Your task to perform on an android device: Add razer thresher to the cart on ebay.com, then select checkout. Image 0: 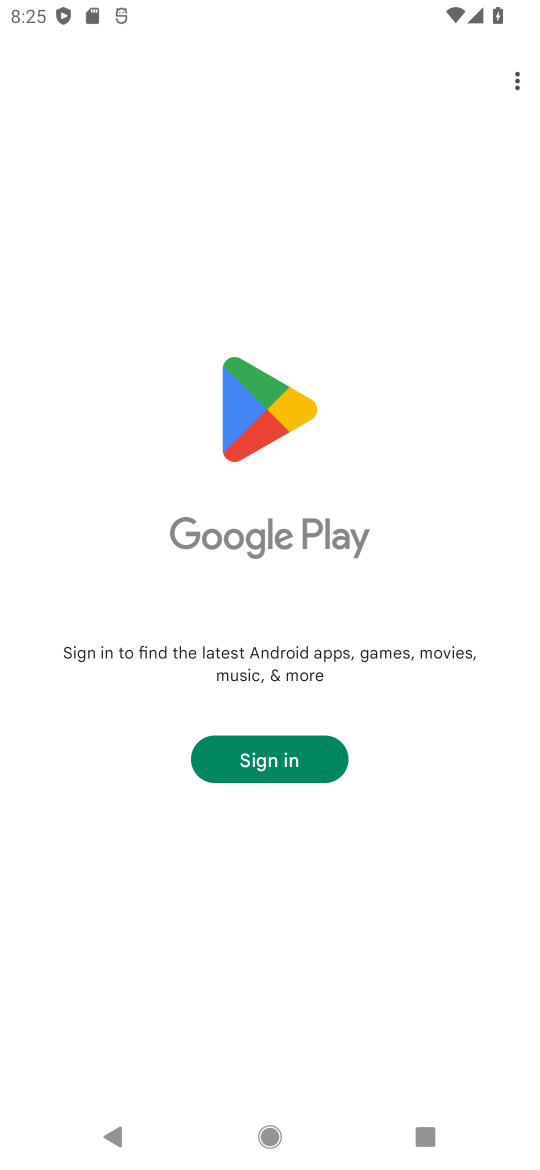
Step 0: press home button
Your task to perform on an android device: Add razer thresher to the cart on ebay.com, then select checkout. Image 1: 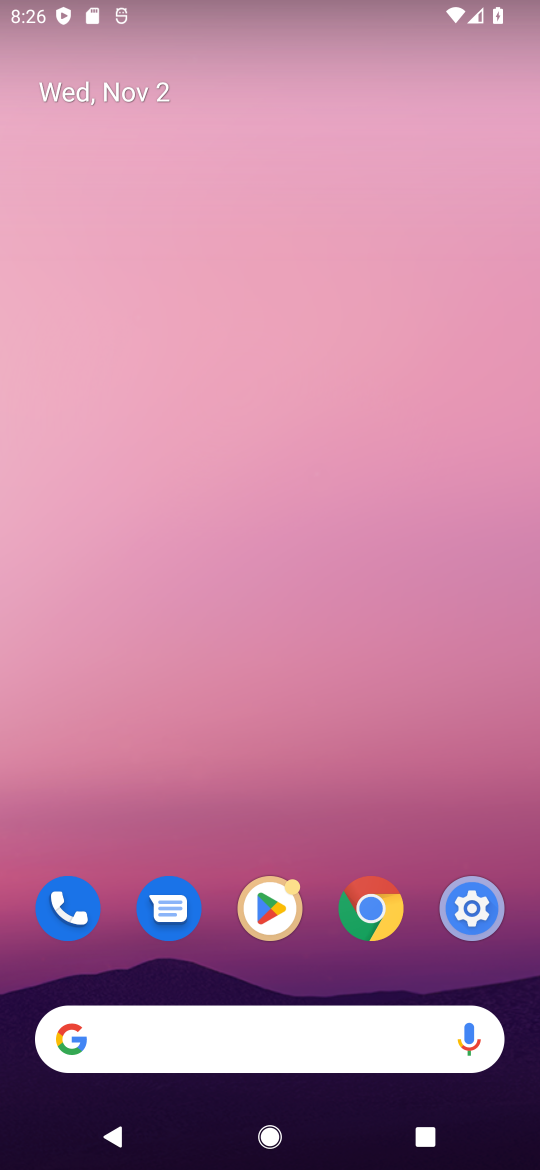
Step 1: click (229, 1024)
Your task to perform on an android device: Add razer thresher to the cart on ebay.com, then select checkout. Image 2: 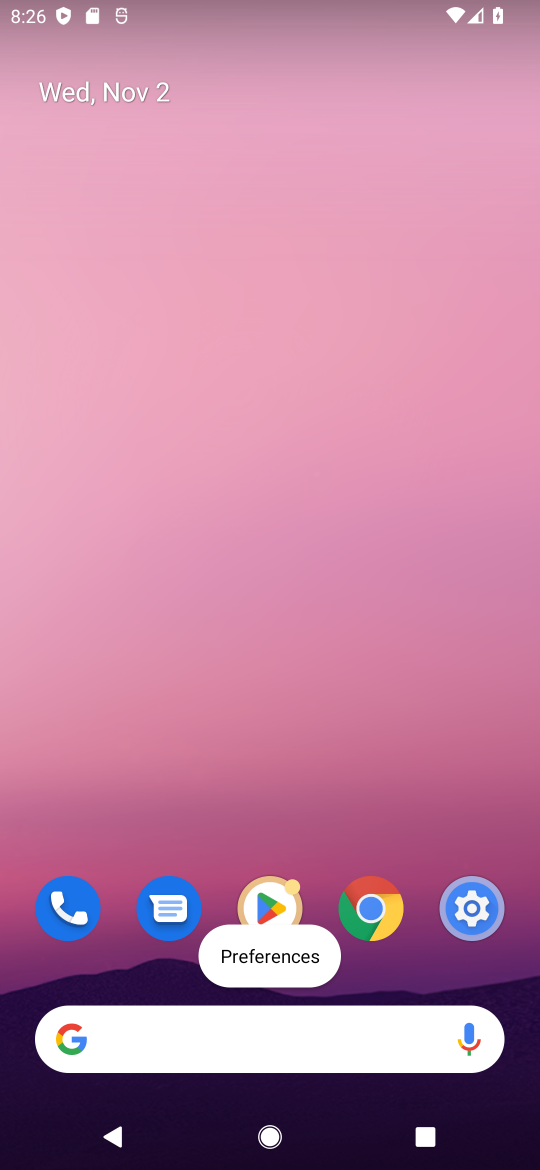
Step 2: click (229, 1029)
Your task to perform on an android device: Add razer thresher to the cart on ebay.com, then select checkout. Image 3: 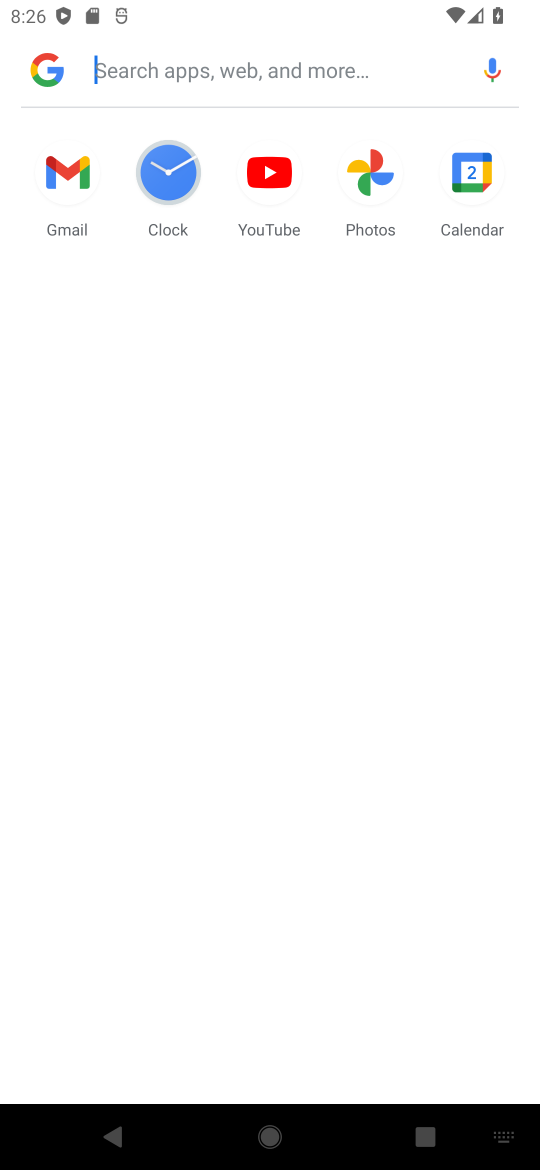
Step 3: type "ebay.com"
Your task to perform on an android device: Add razer thresher to the cart on ebay.com, then select checkout. Image 4: 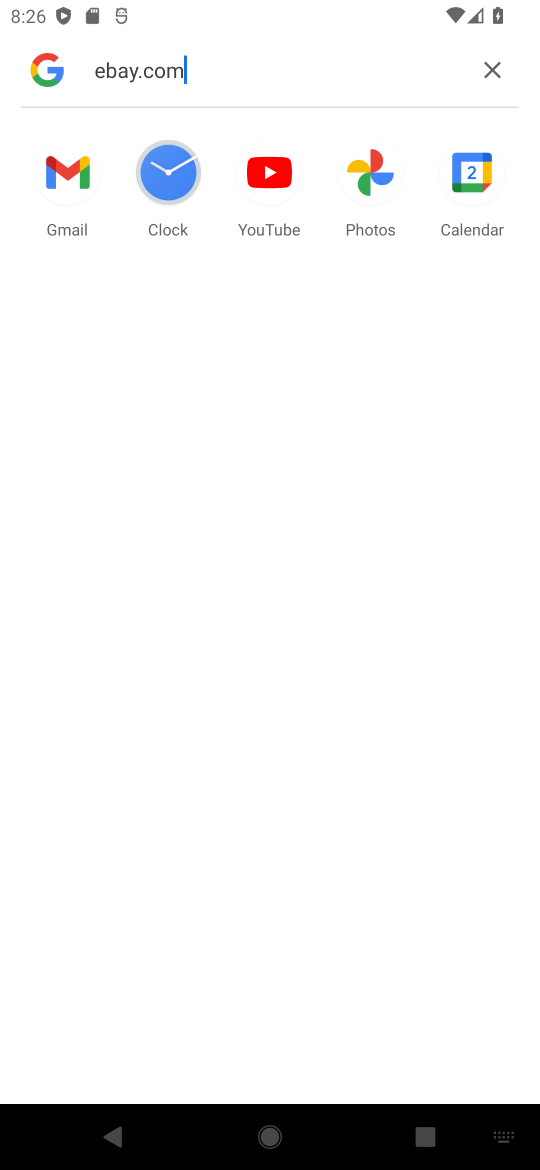
Step 4: type ""
Your task to perform on an android device: Add razer thresher to the cart on ebay.com, then select checkout. Image 5: 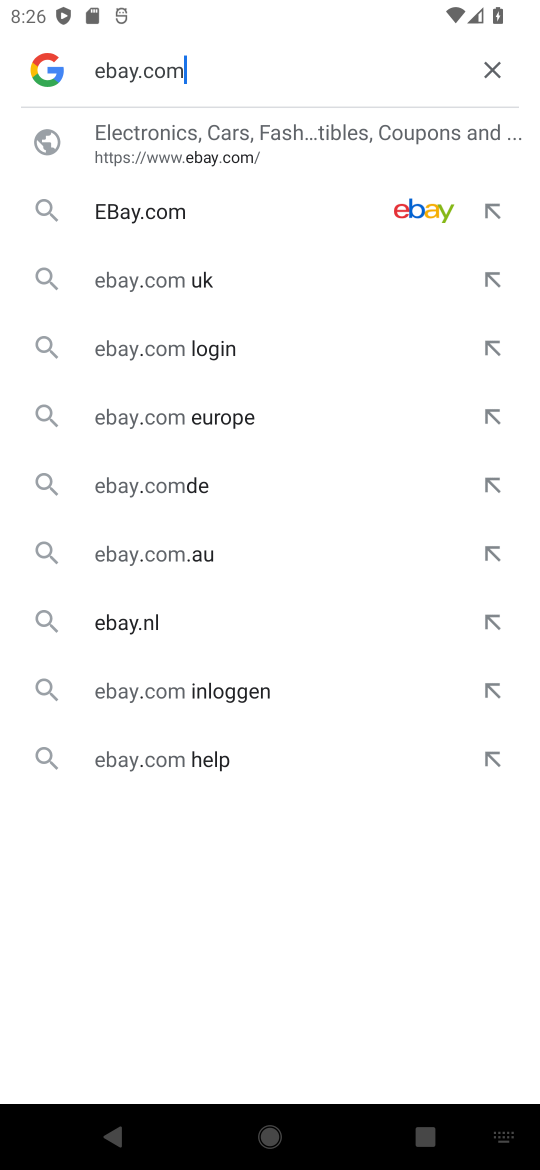
Step 5: press enter
Your task to perform on an android device: Add razer thresher to the cart on ebay.com, then select checkout. Image 6: 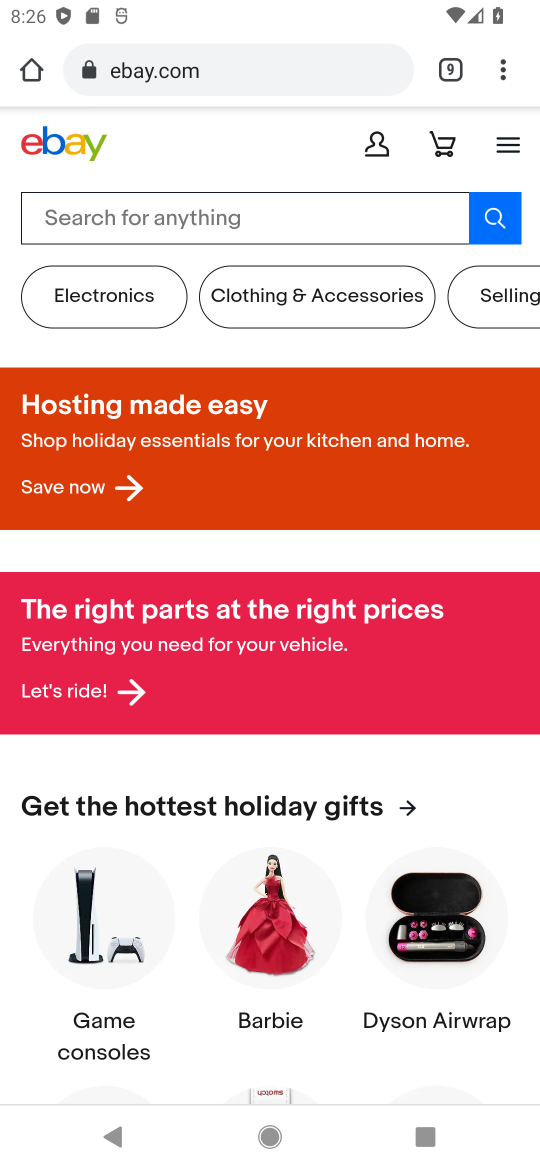
Step 6: click (137, 223)
Your task to perform on an android device: Add razer thresher to the cart on ebay.com, then select checkout. Image 7: 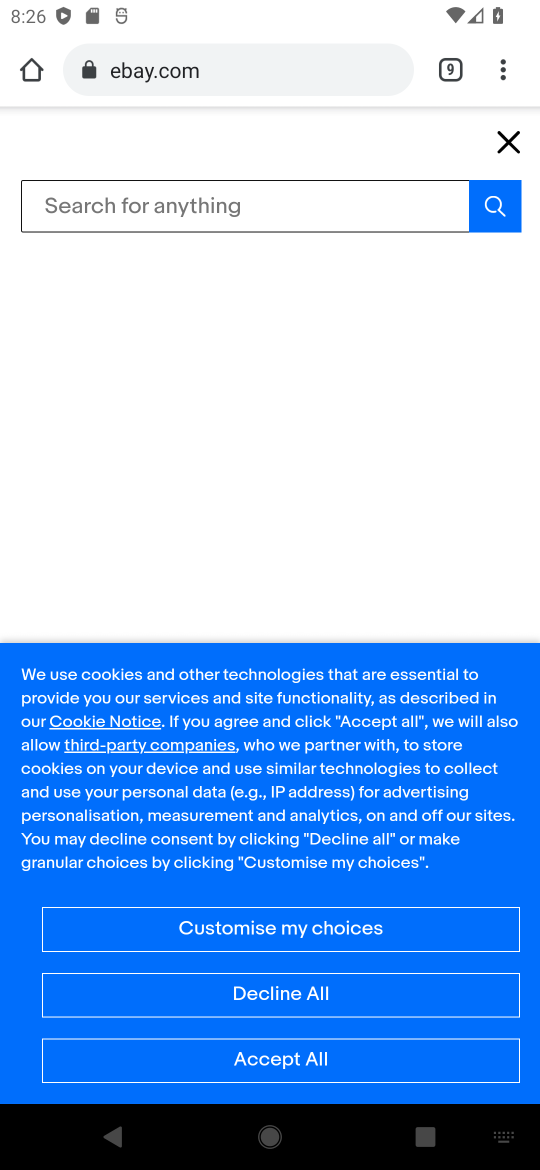
Step 7: click (317, 1051)
Your task to perform on an android device: Add razer thresher to the cart on ebay.com, then select checkout. Image 8: 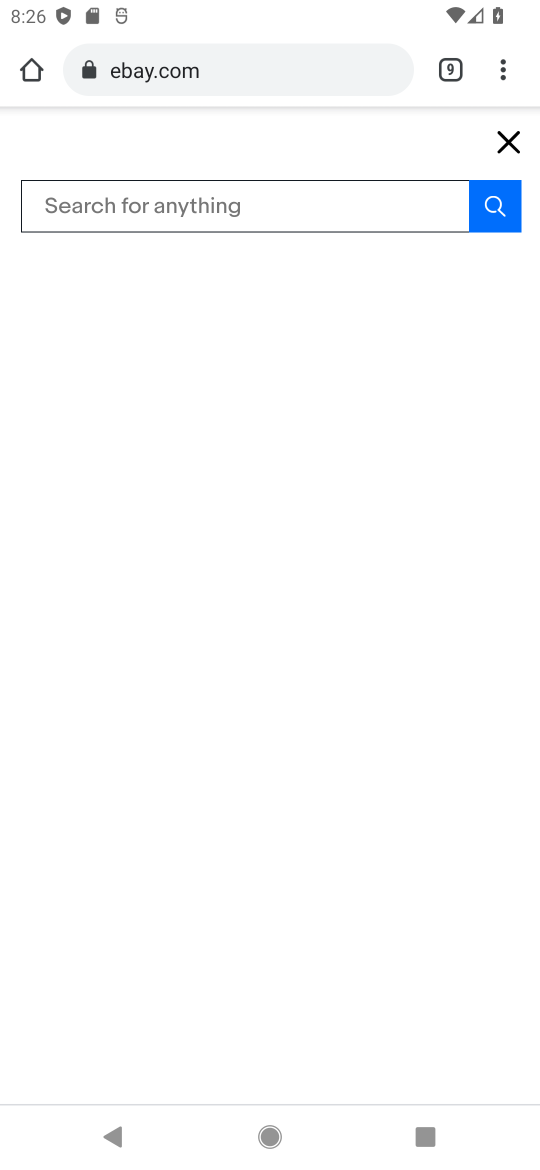
Step 8: click (110, 213)
Your task to perform on an android device: Add razer thresher to the cart on ebay.com, then select checkout. Image 9: 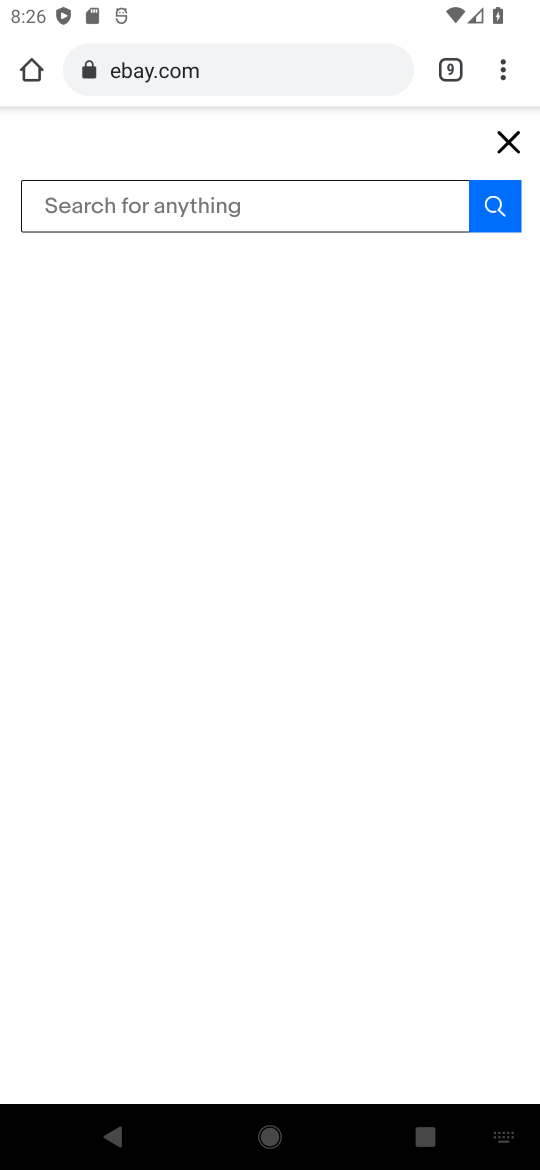
Step 9: click (107, 212)
Your task to perform on an android device: Add razer thresher to the cart on ebay.com, then select checkout. Image 10: 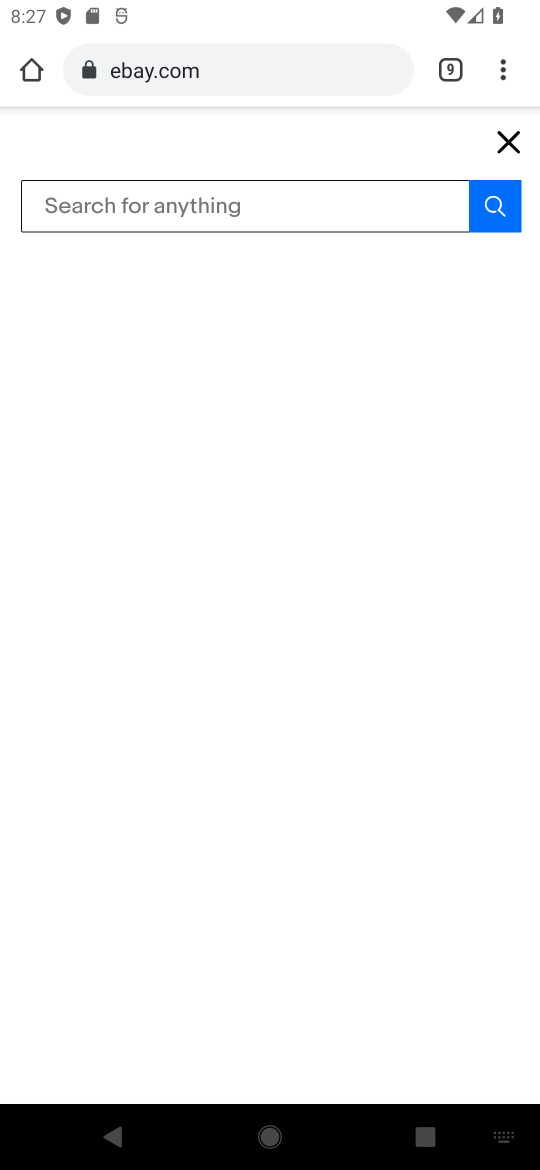
Step 10: click (105, 212)
Your task to perform on an android device: Add razer thresher to the cart on ebay.com, then select checkout. Image 11: 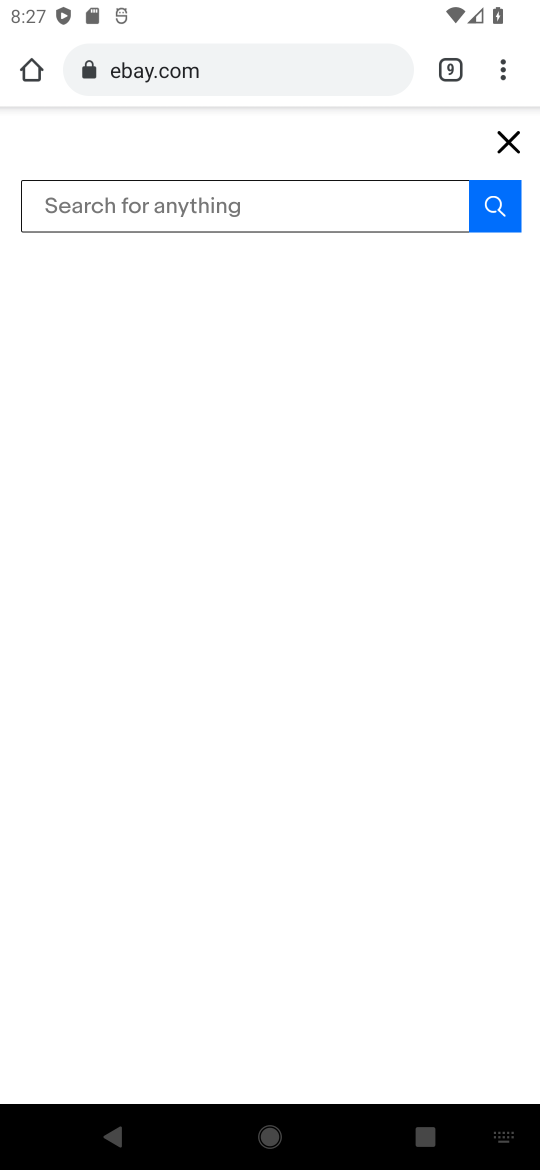
Step 11: type "razer thresher"
Your task to perform on an android device: Add razer thresher to the cart on ebay.com, then select checkout. Image 12: 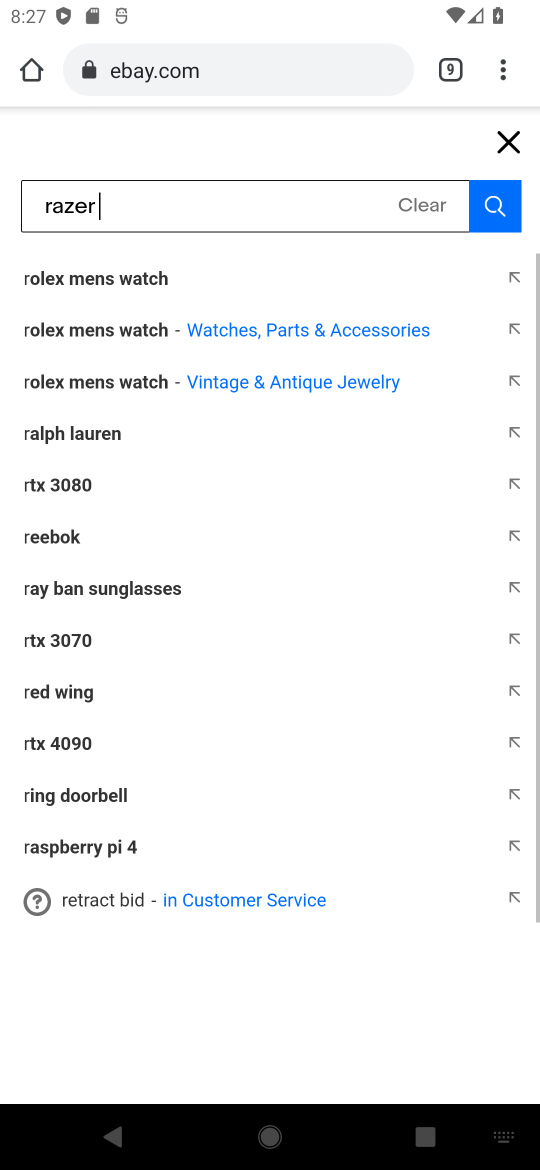
Step 12: press enter
Your task to perform on an android device: Add razer thresher to the cart on ebay.com, then select checkout. Image 13: 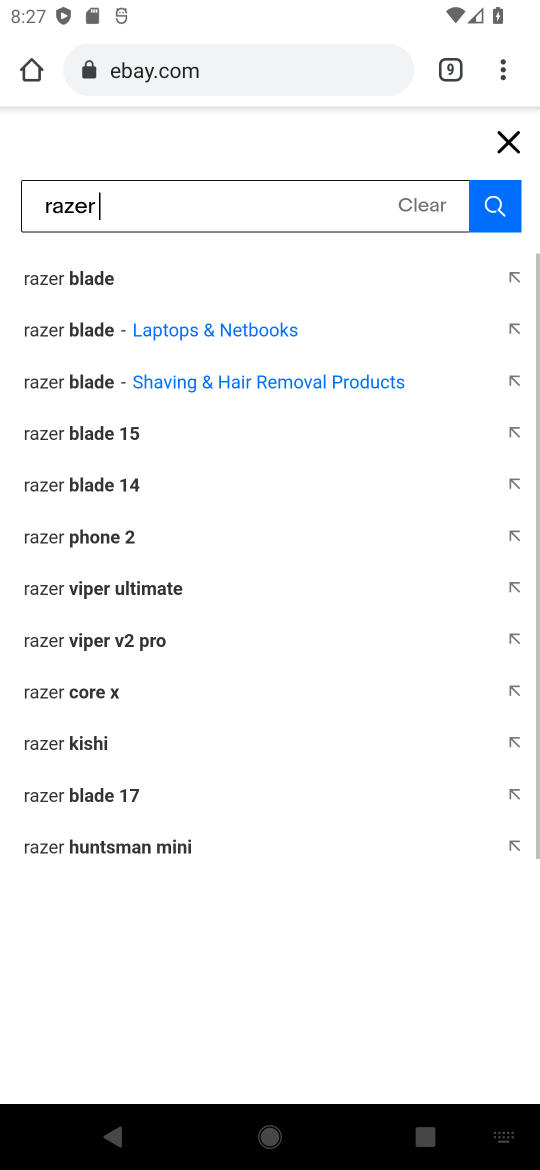
Step 13: type ""
Your task to perform on an android device: Add razer thresher to the cart on ebay.com, then select checkout. Image 14: 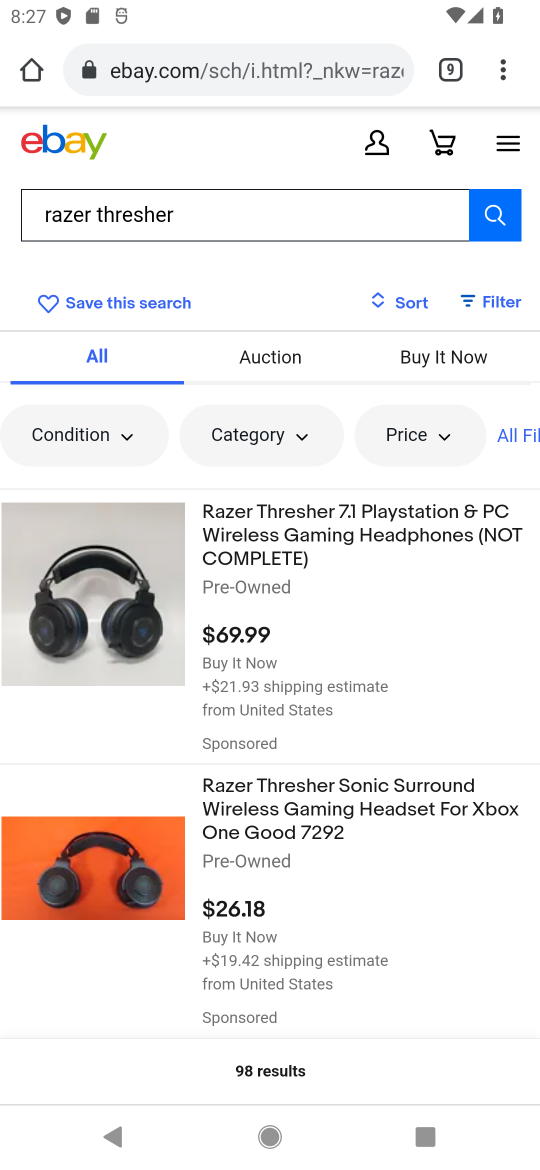
Step 14: click (350, 532)
Your task to perform on an android device: Add razer thresher to the cart on ebay.com, then select checkout. Image 15: 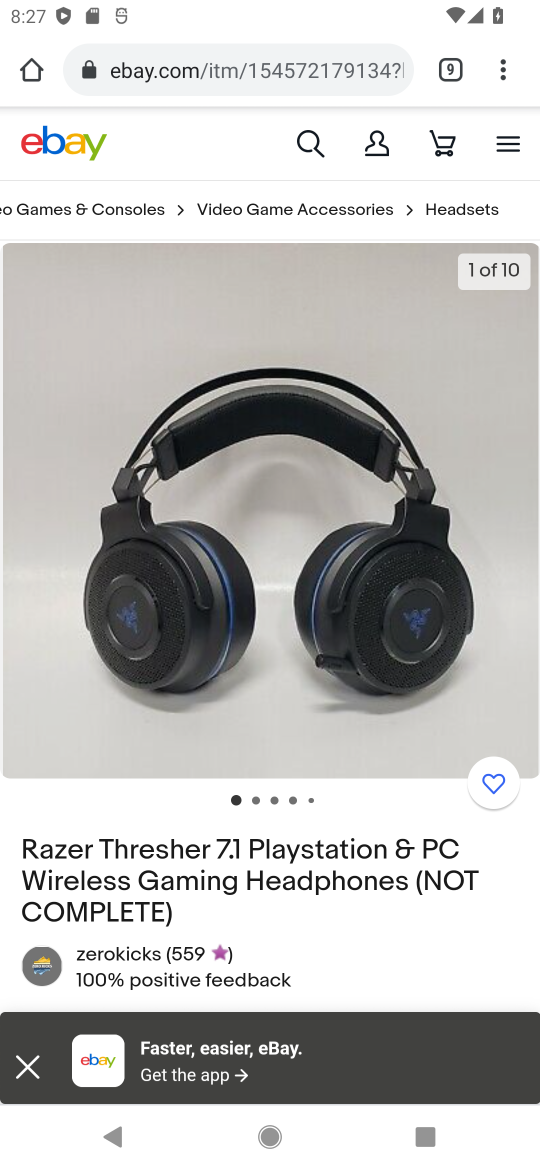
Step 15: drag from (323, 920) to (323, 530)
Your task to perform on an android device: Add razer thresher to the cart on ebay.com, then select checkout. Image 16: 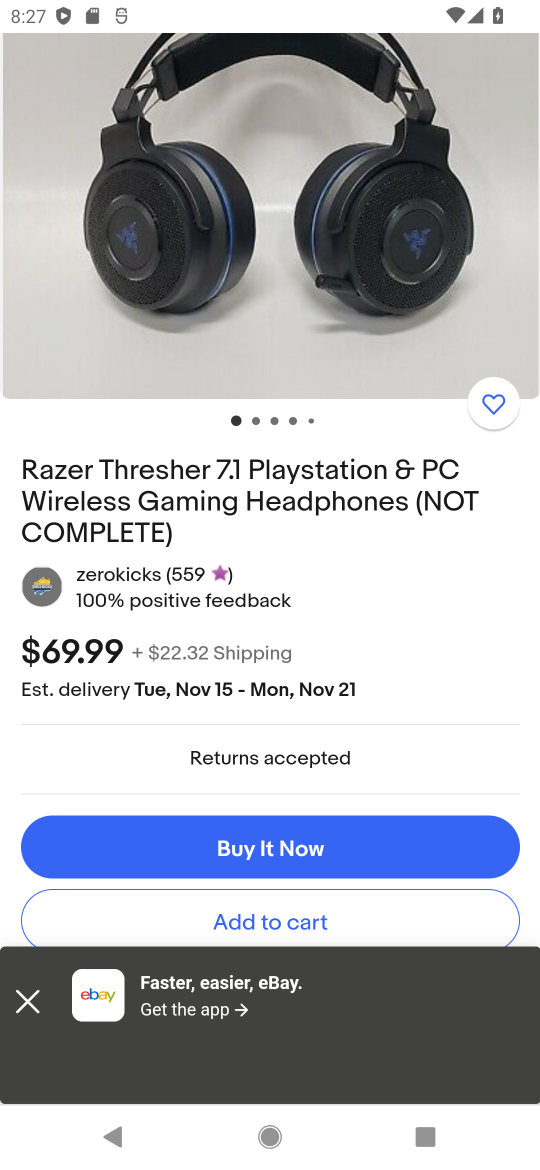
Step 16: click (302, 916)
Your task to perform on an android device: Add razer thresher to the cart on ebay.com, then select checkout. Image 17: 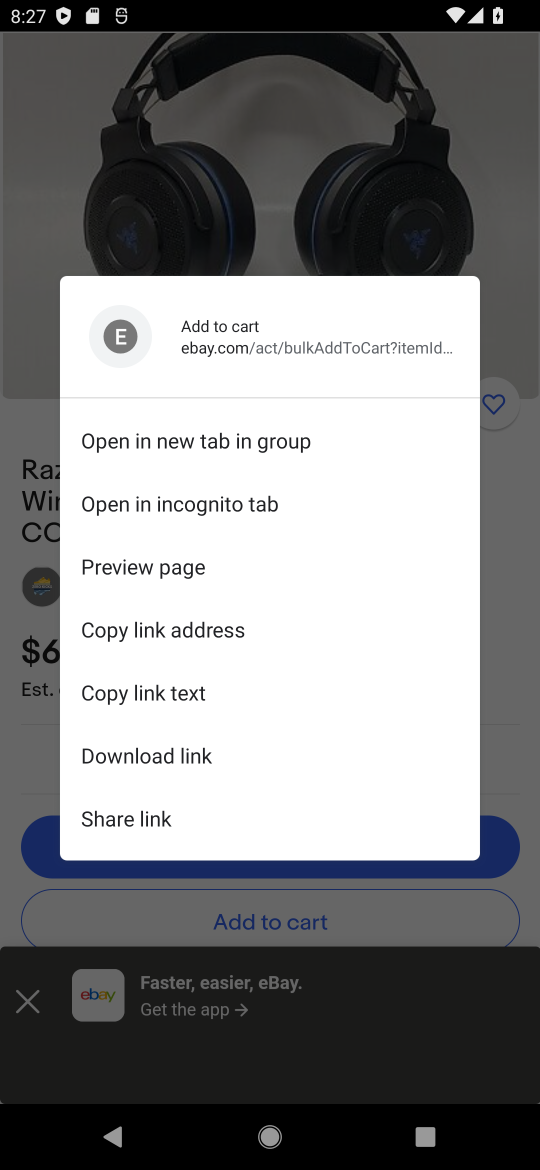
Step 17: click (302, 916)
Your task to perform on an android device: Add razer thresher to the cart on ebay.com, then select checkout. Image 18: 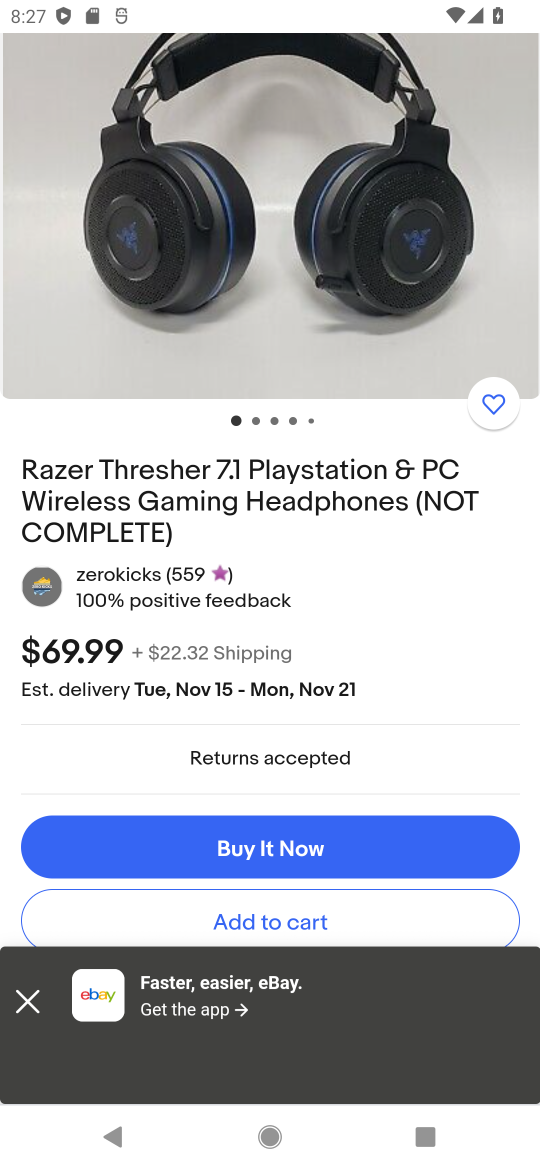
Step 18: click (302, 916)
Your task to perform on an android device: Add razer thresher to the cart on ebay.com, then select checkout. Image 19: 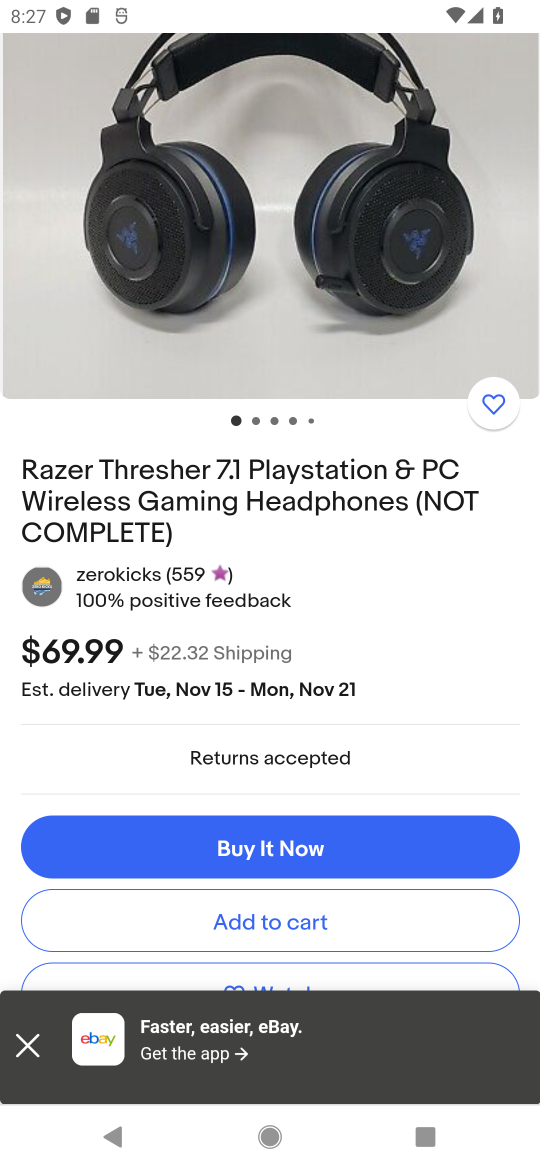
Step 19: click (302, 916)
Your task to perform on an android device: Add razer thresher to the cart on ebay.com, then select checkout. Image 20: 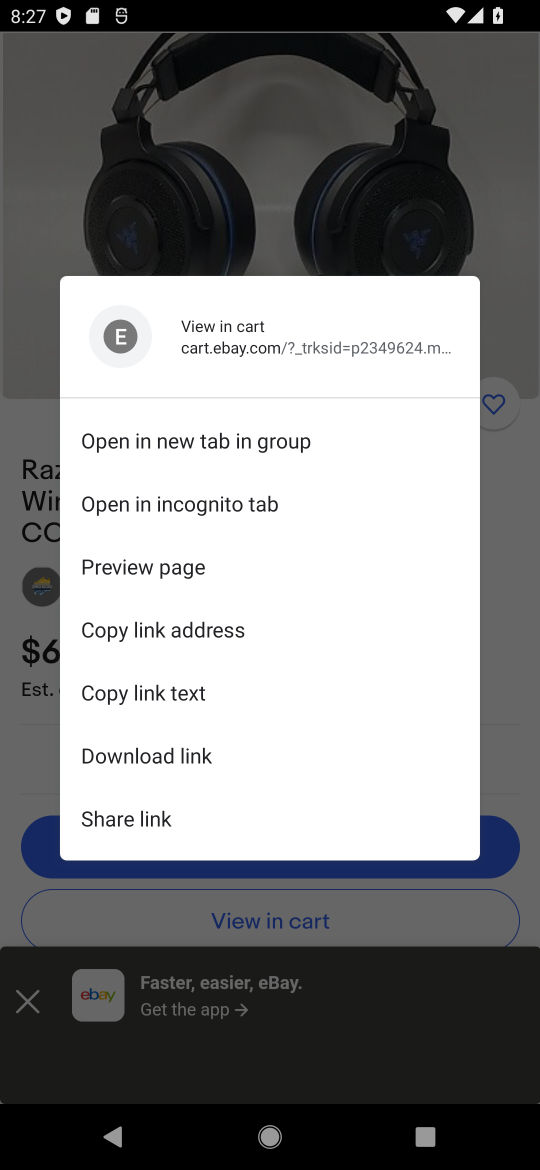
Step 20: click (264, 910)
Your task to perform on an android device: Add razer thresher to the cart on ebay.com, then select checkout. Image 21: 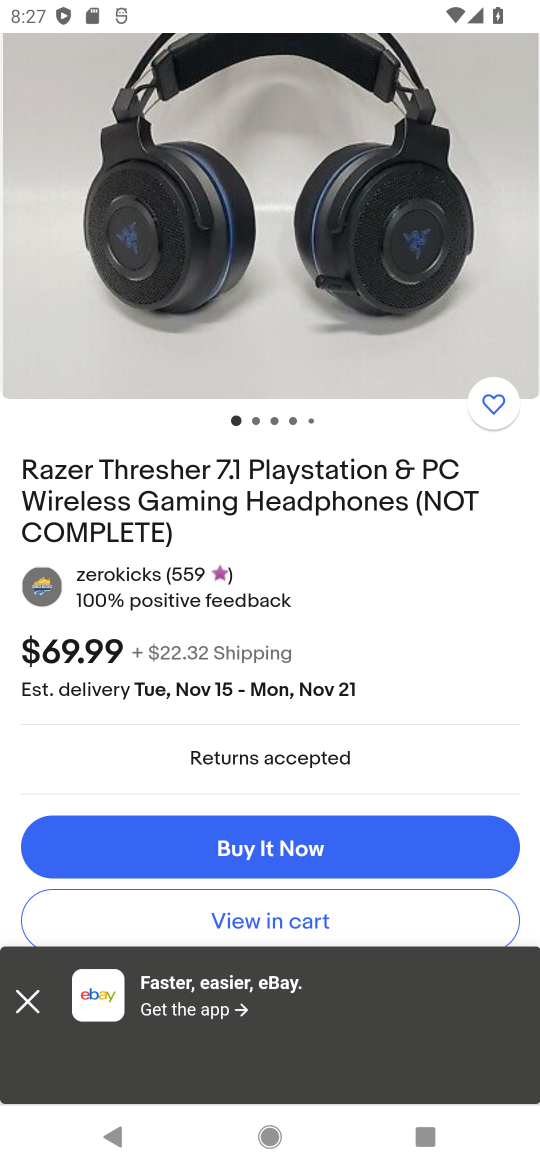
Step 21: click (311, 914)
Your task to perform on an android device: Add razer thresher to the cart on ebay.com, then select checkout. Image 22: 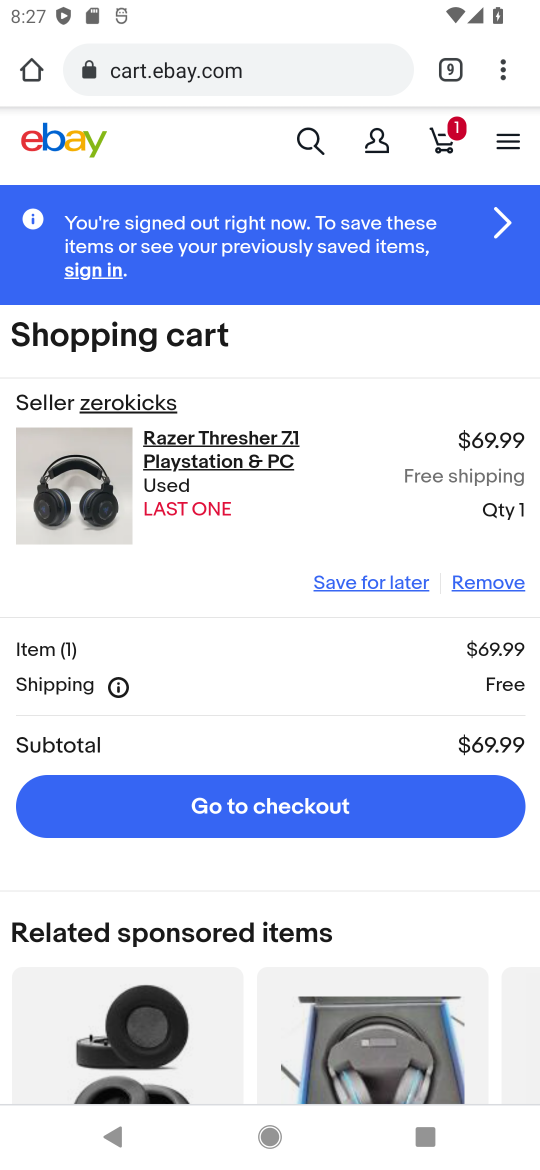
Step 22: click (291, 807)
Your task to perform on an android device: Add razer thresher to the cart on ebay.com, then select checkout. Image 23: 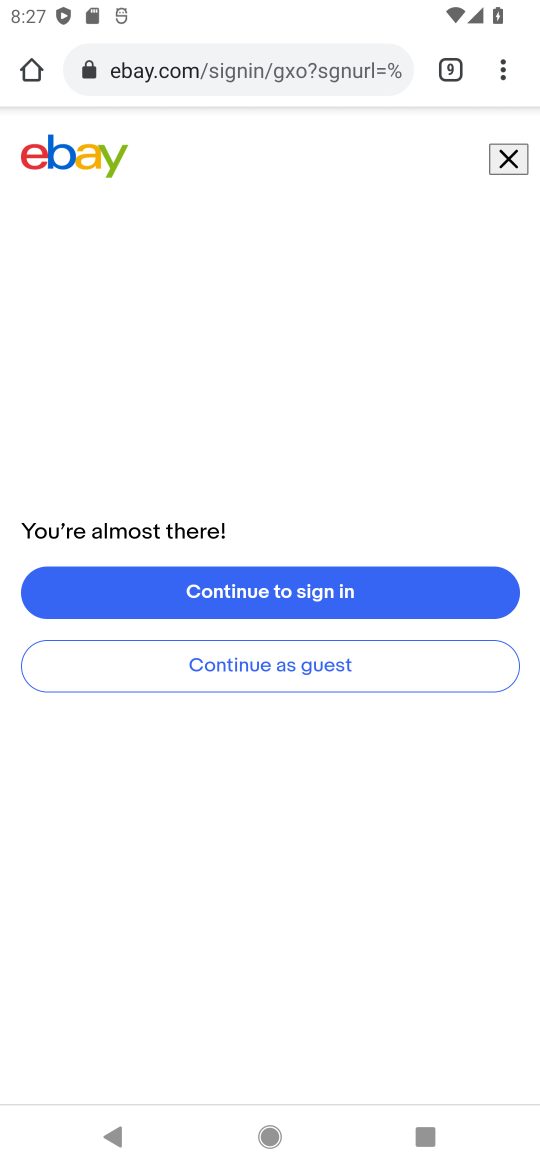
Step 23: task complete